Your task to perform on an android device: toggle show notifications on the lock screen Image 0: 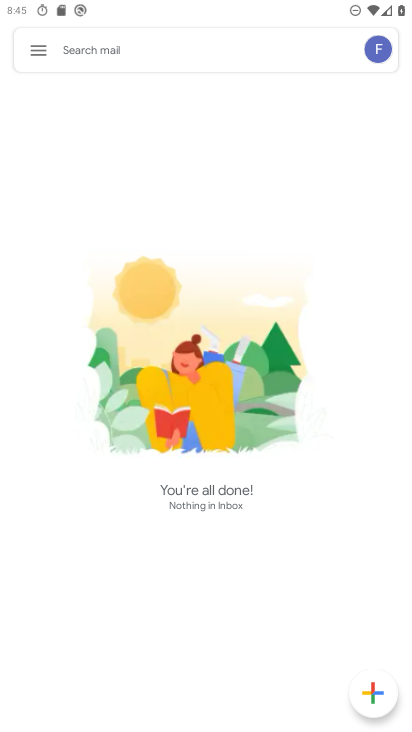
Step 0: press home button
Your task to perform on an android device: toggle show notifications on the lock screen Image 1: 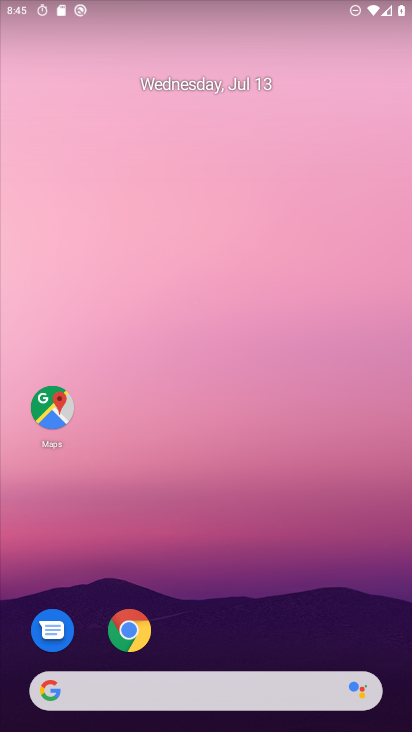
Step 1: drag from (341, 565) to (249, 96)
Your task to perform on an android device: toggle show notifications on the lock screen Image 2: 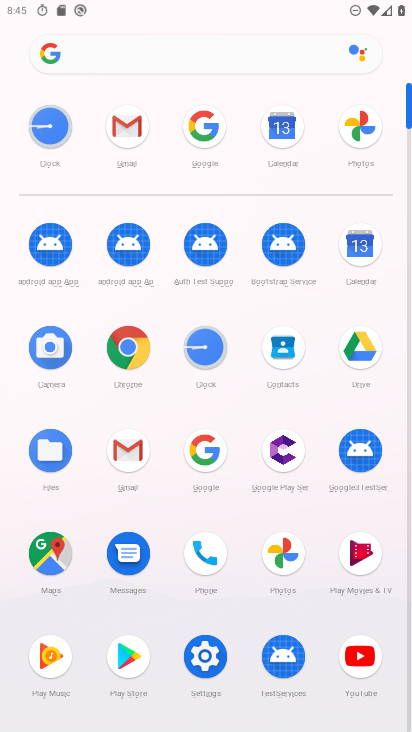
Step 2: click (198, 648)
Your task to perform on an android device: toggle show notifications on the lock screen Image 3: 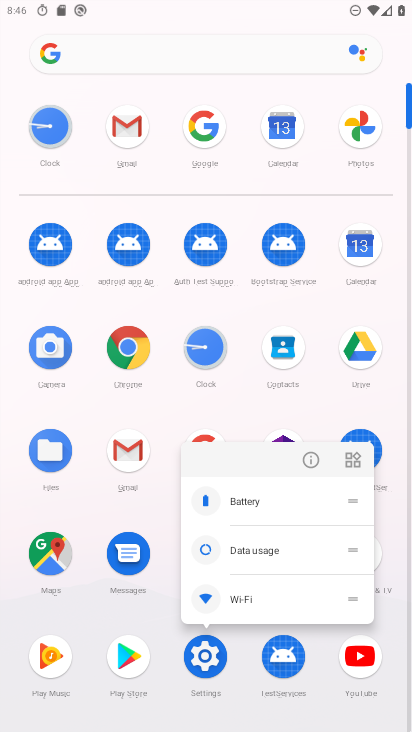
Step 3: click (199, 647)
Your task to perform on an android device: toggle show notifications on the lock screen Image 4: 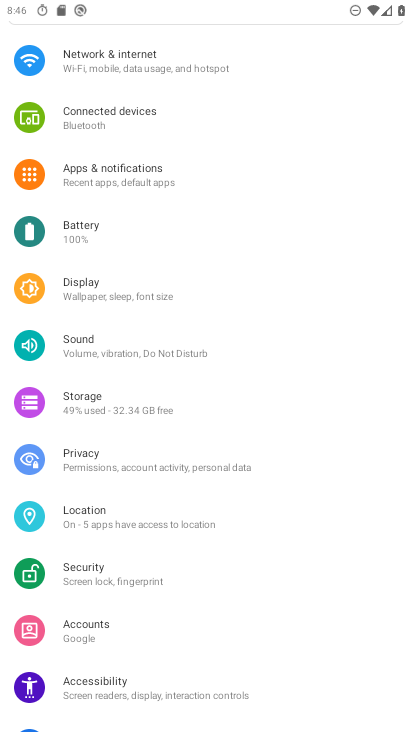
Step 4: click (139, 173)
Your task to perform on an android device: toggle show notifications on the lock screen Image 5: 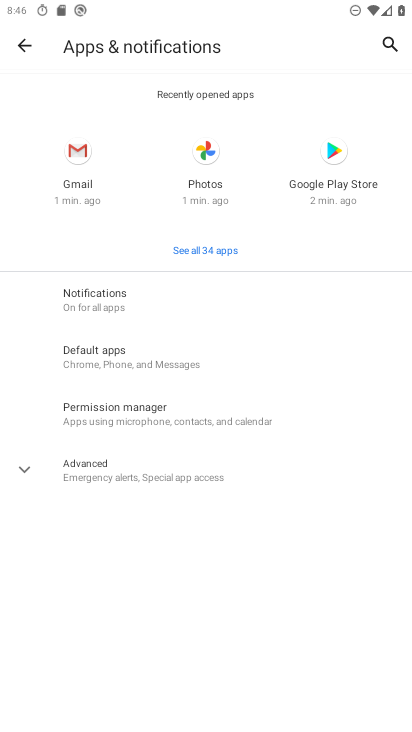
Step 5: click (106, 479)
Your task to perform on an android device: toggle show notifications on the lock screen Image 6: 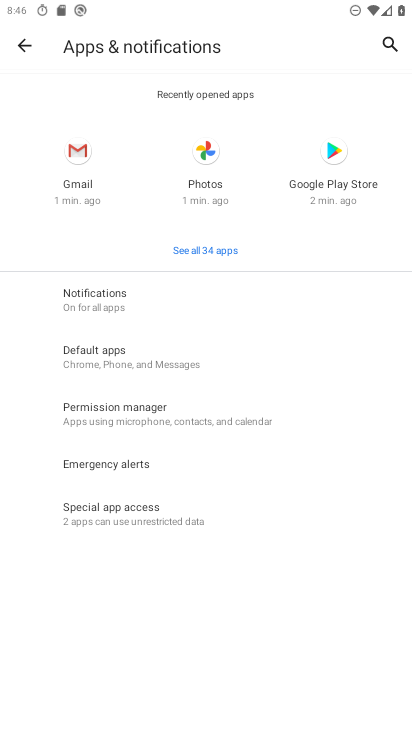
Step 6: click (126, 305)
Your task to perform on an android device: toggle show notifications on the lock screen Image 7: 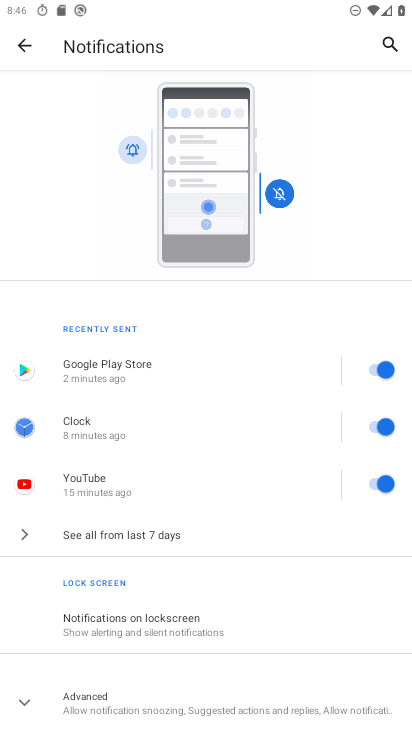
Step 7: click (178, 619)
Your task to perform on an android device: toggle show notifications on the lock screen Image 8: 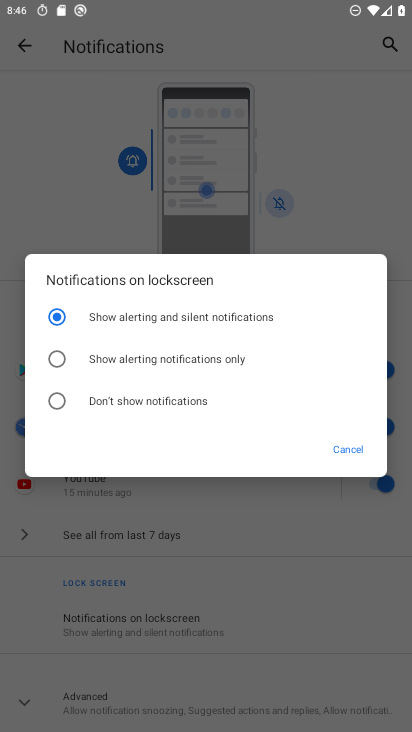
Step 8: click (52, 401)
Your task to perform on an android device: toggle show notifications on the lock screen Image 9: 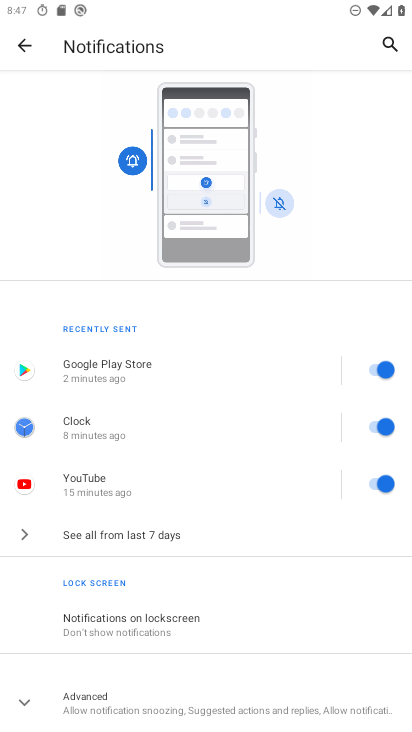
Step 9: task complete